Your task to perform on an android device: allow notifications from all sites in the chrome app Image 0: 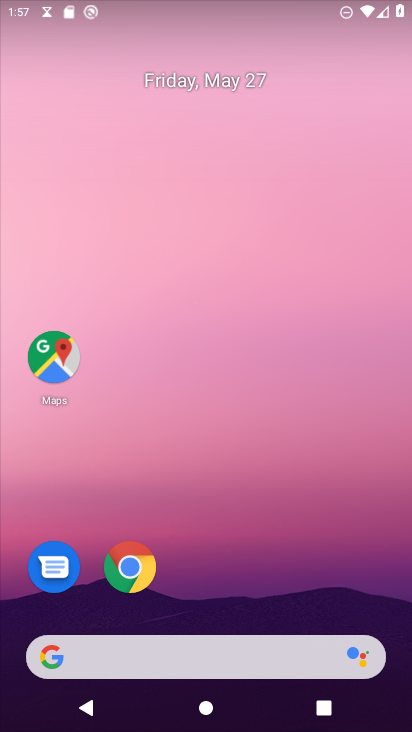
Step 0: click (131, 582)
Your task to perform on an android device: allow notifications from all sites in the chrome app Image 1: 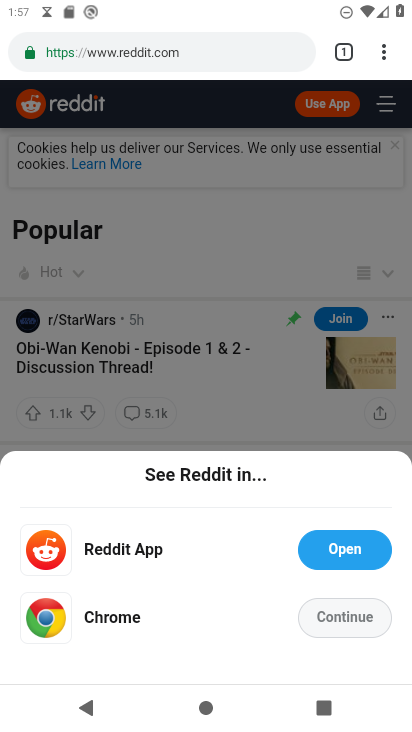
Step 1: click (388, 50)
Your task to perform on an android device: allow notifications from all sites in the chrome app Image 2: 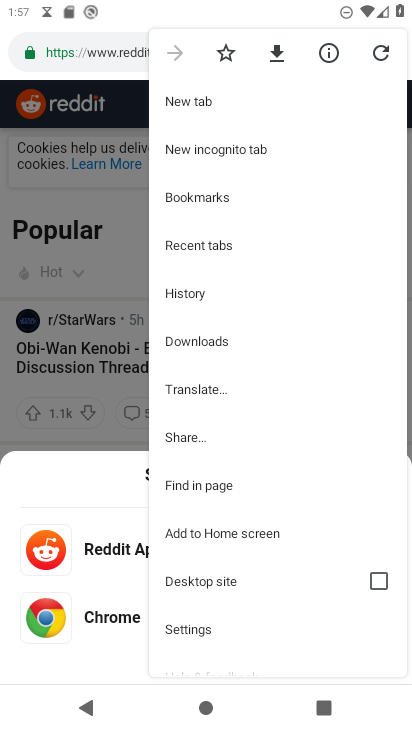
Step 2: click (241, 633)
Your task to perform on an android device: allow notifications from all sites in the chrome app Image 3: 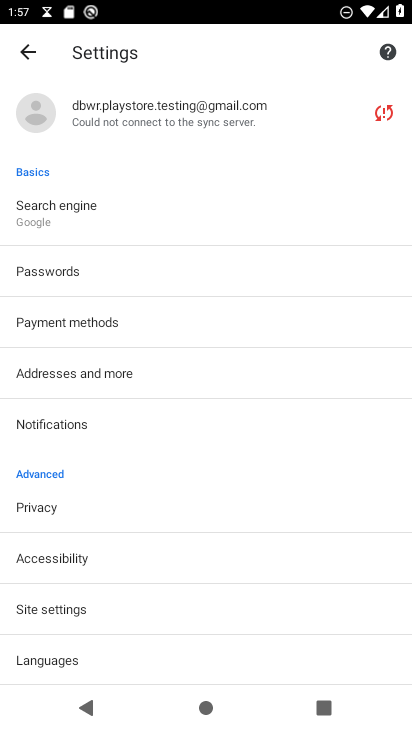
Step 3: click (166, 606)
Your task to perform on an android device: allow notifications from all sites in the chrome app Image 4: 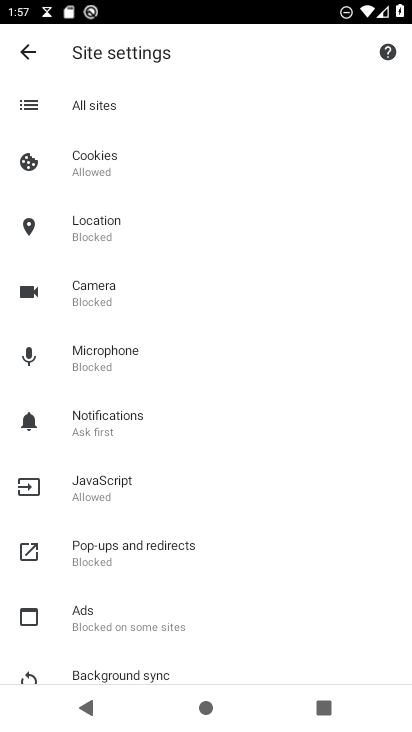
Step 4: click (137, 427)
Your task to perform on an android device: allow notifications from all sites in the chrome app Image 5: 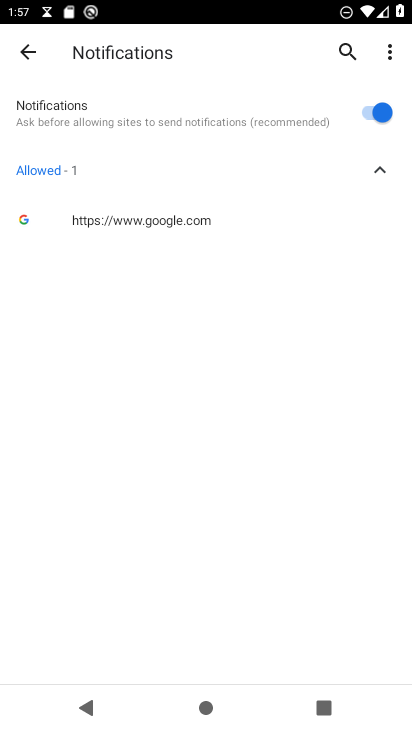
Step 5: task complete